Your task to perform on an android device: turn off sleep mode Image 0: 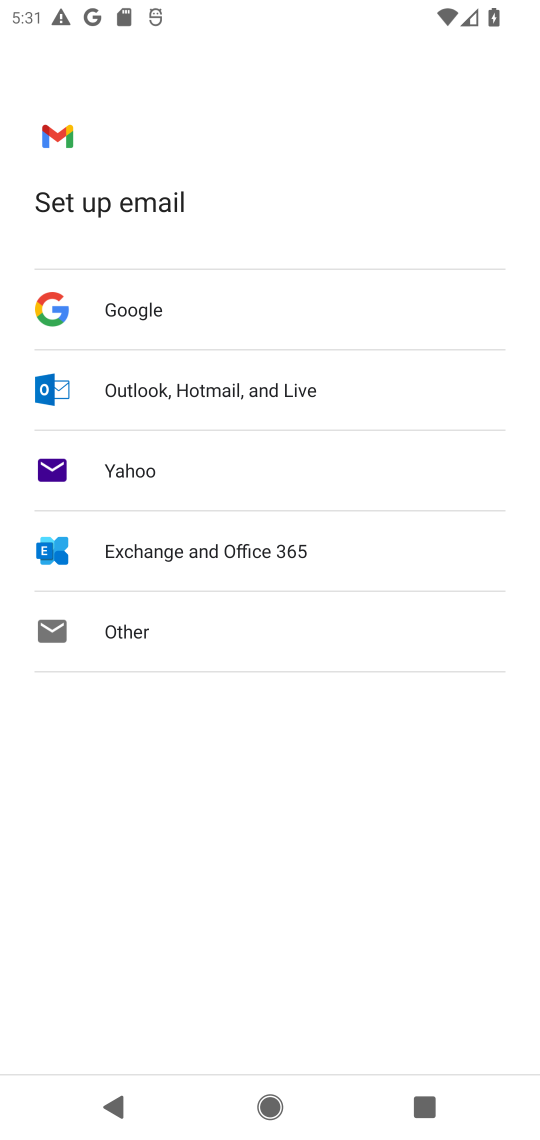
Step 0: press home button
Your task to perform on an android device: turn off sleep mode Image 1: 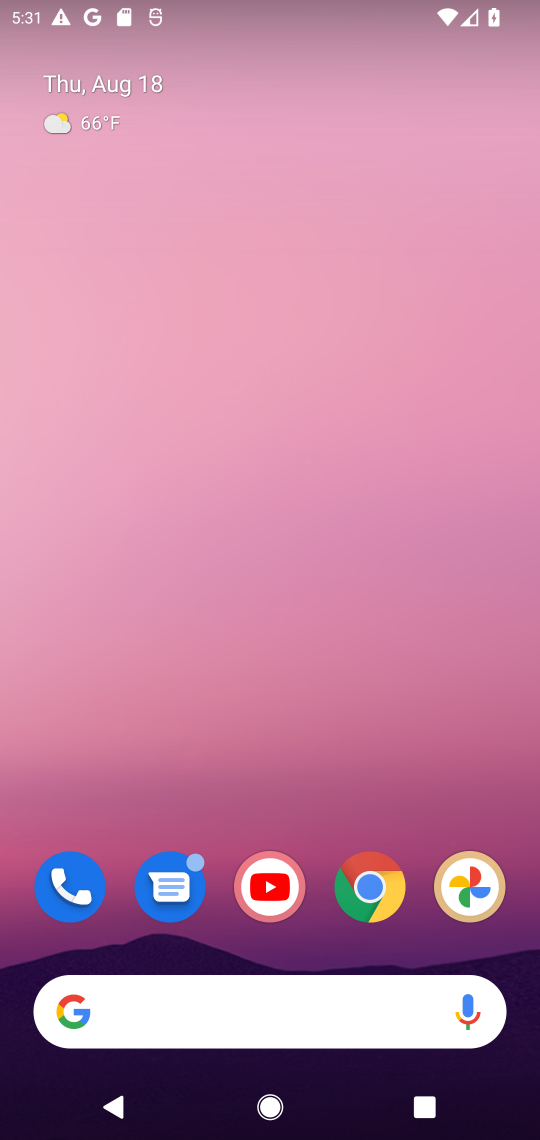
Step 1: task complete